Your task to perform on an android device: What's the weather today? Image 0: 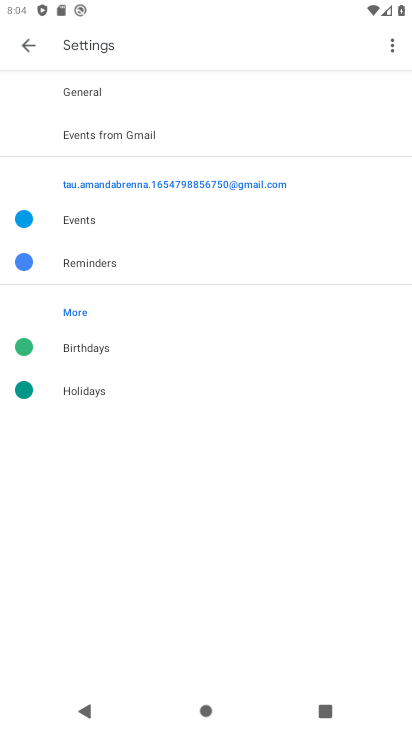
Step 0: press home button
Your task to perform on an android device: What's the weather today? Image 1: 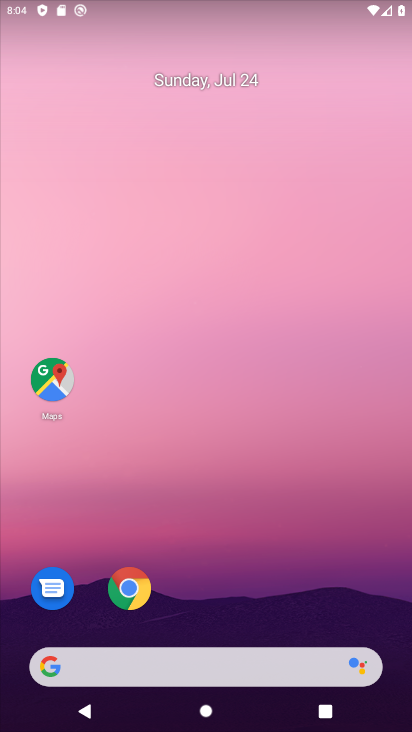
Step 1: click (209, 660)
Your task to perform on an android device: What's the weather today? Image 2: 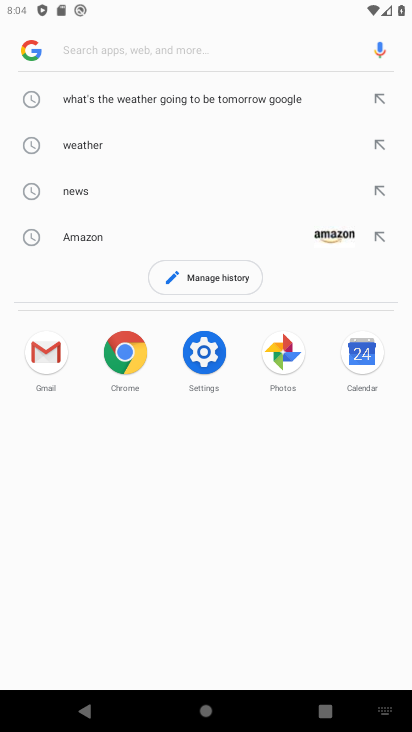
Step 2: type "what's the weather today?"
Your task to perform on an android device: What's the weather today? Image 3: 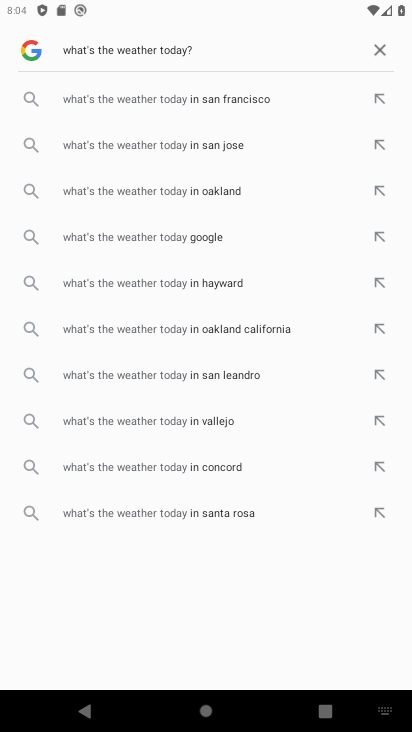
Step 3: click (162, 235)
Your task to perform on an android device: What's the weather today? Image 4: 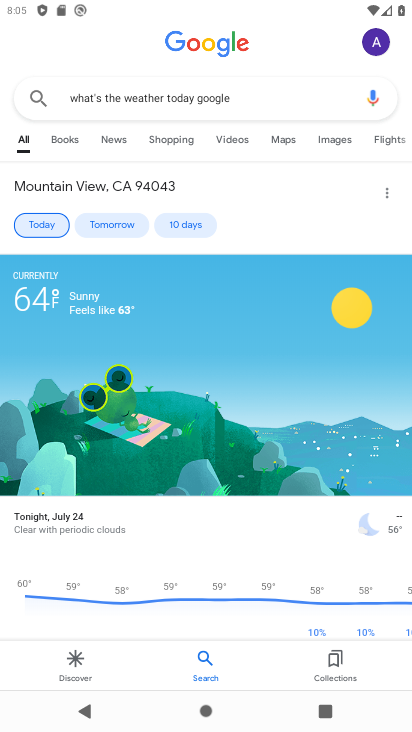
Step 4: task complete